Your task to perform on an android device: set default search engine in the chrome app Image 0: 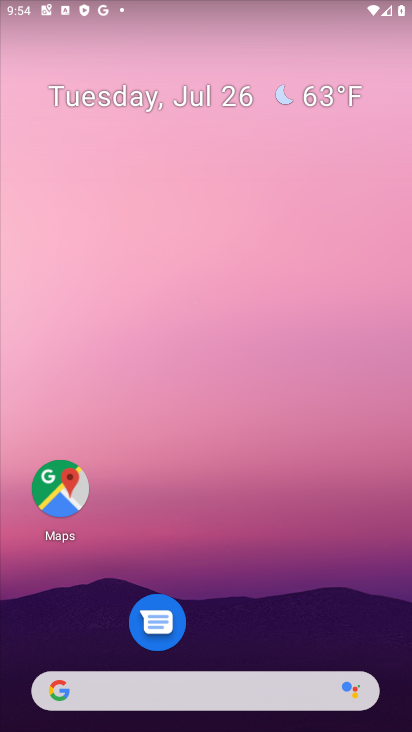
Step 0: drag from (276, 597) to (155, 12)
Your task to perform on an android device: set default search engine in the chrome app Image 1: 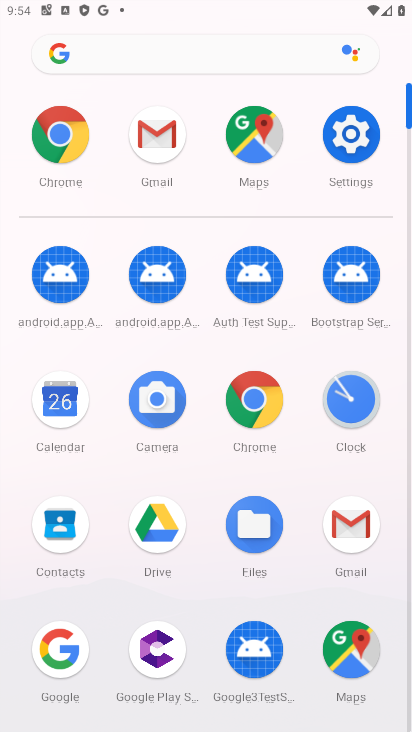
Step 1: click (65, 141)
Your task to perform on an android device: set default search engine in the chrome app Image 2: 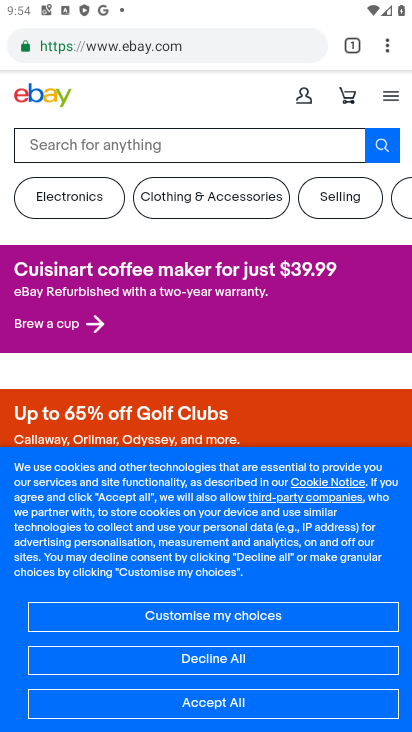
Step 2: drag from (390, 49) to (224, 567)
Your task to perform on an android device: set default search engine in the chrome app Image 3: 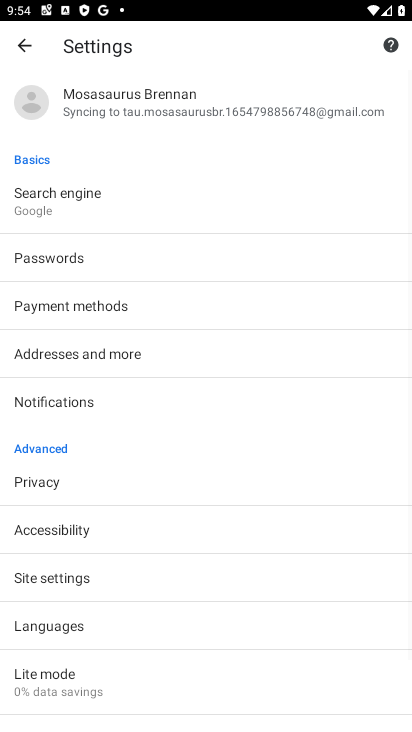
Step 3: click (35, 214)
Your task to perform on an android device: set default search engine in the chrome app Image 4: 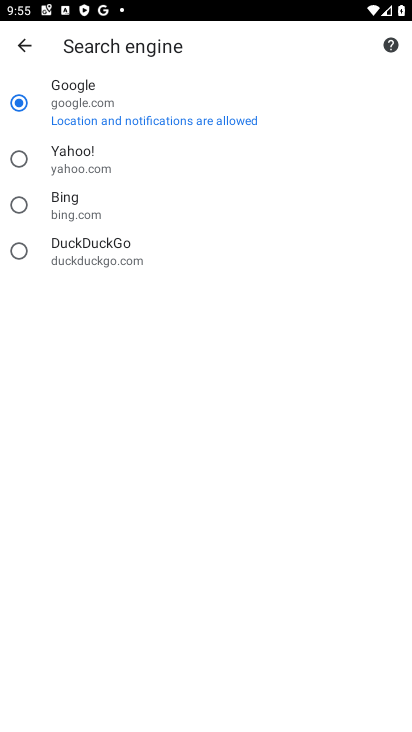
Step 4: task complete